Your task to perform on an android device: Search for macbook air on costco, select the first entry, and add it to the cart. Image 0: 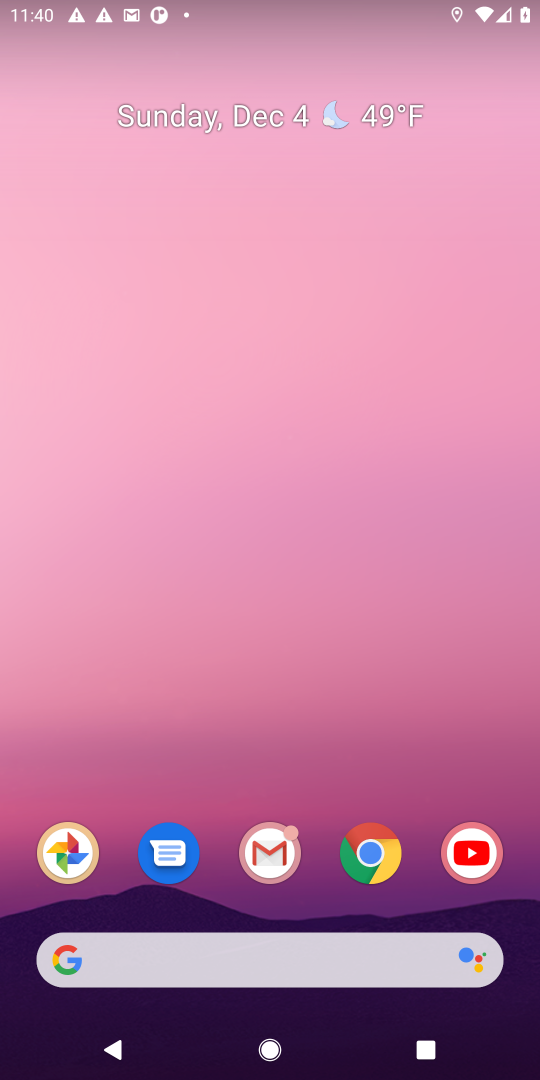
Step 0: click (358, 855)
Your task to perform on an android device: Search for macbook air on costco, select the first entry, and add it to the cart. Image 1: 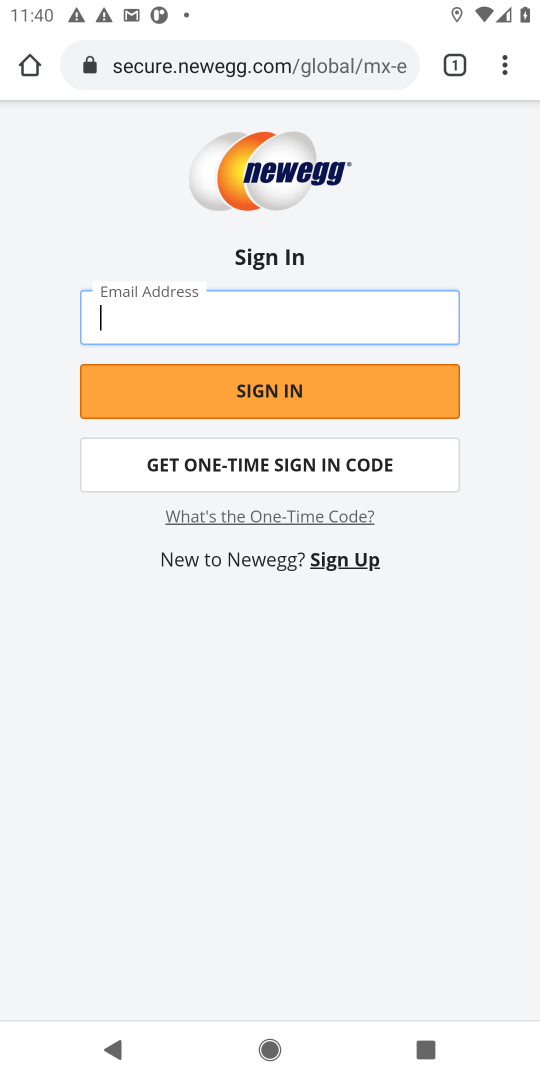
Step 1: click (191, 66)
Your task to perform on an android device: Search for macbook air on costco, select the first entry, and add it to the cart. Image 2: 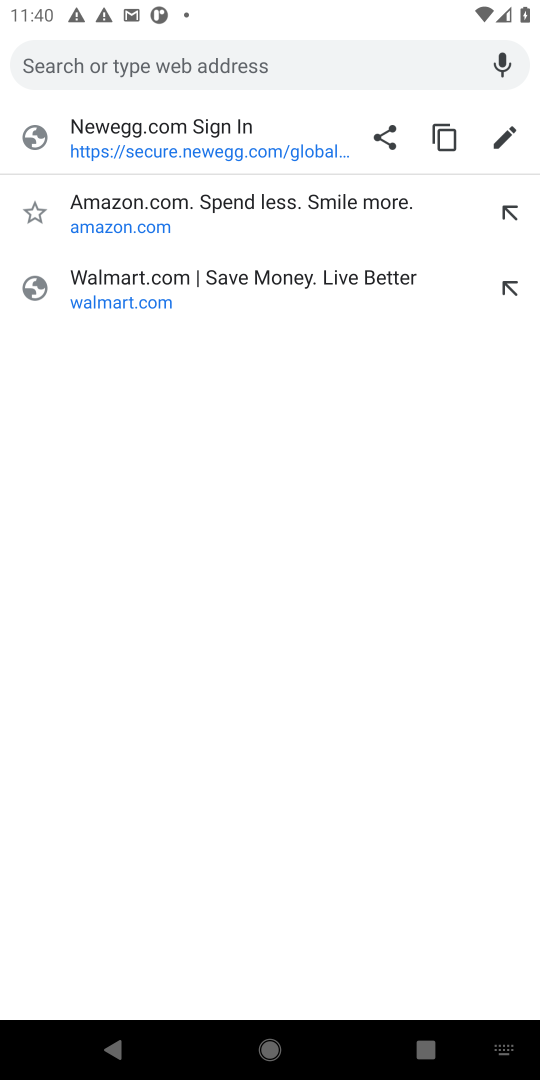
Step 2: type "costco"
Your task to perform on an android device: Search for macbook air on costco, select the first entry, and add it to the cart. Image 3: 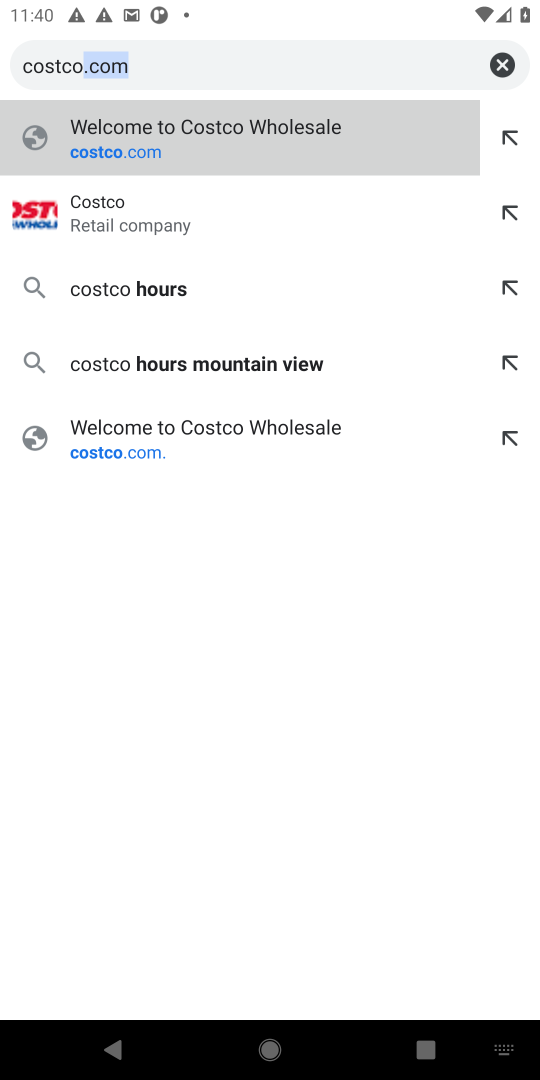
Step 3: click (182, 158)
Your task to perform on an android device: Search for macbook air on costco, select the first entry, and add it to the cart. Image 4: 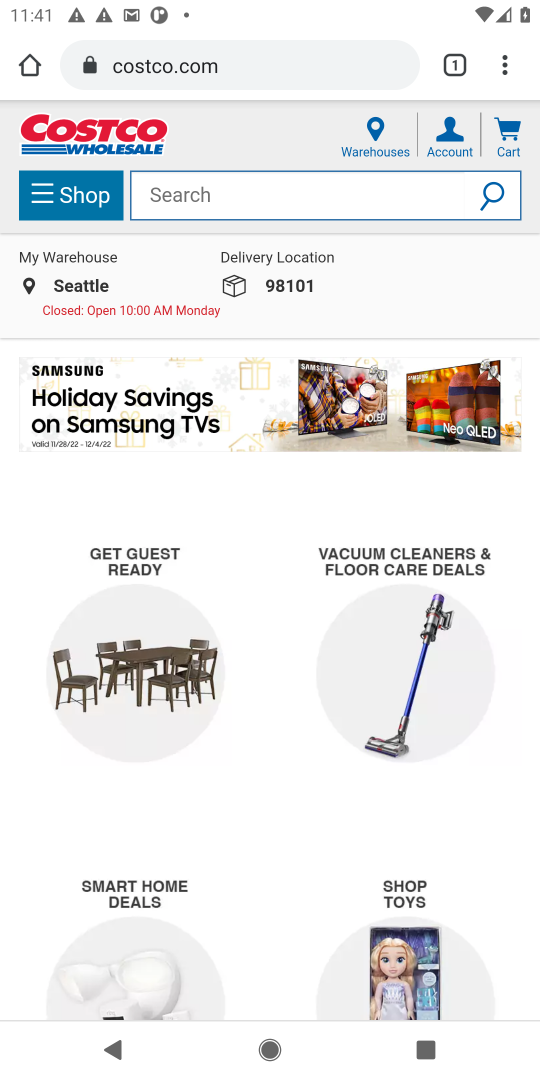
Step 4: click (339, 177)
Your task to perform on an android device: Search for macbook air on costco, select the first entry, and add it to the cart. Image 5: 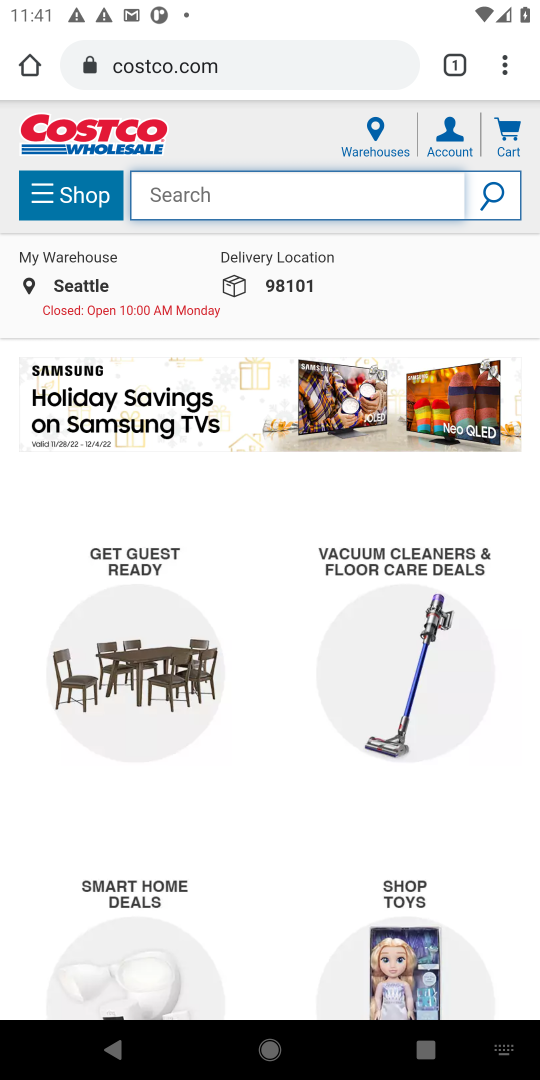
Step 5: type " macbook air "
Your task to perform on an android device: Search for macbook air on costco, select the first entry, and add it to the cart. Image 6: 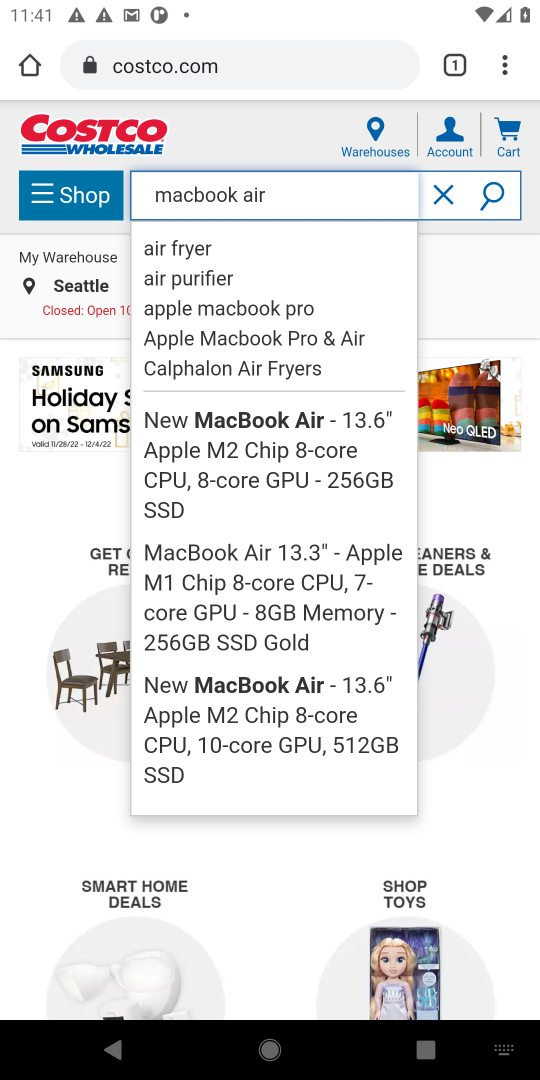
Step 6: click (508, 192)
Your task to perform on an android device: Search for macbook air on costco, select the first entry, and add it to the cart. Image 7: 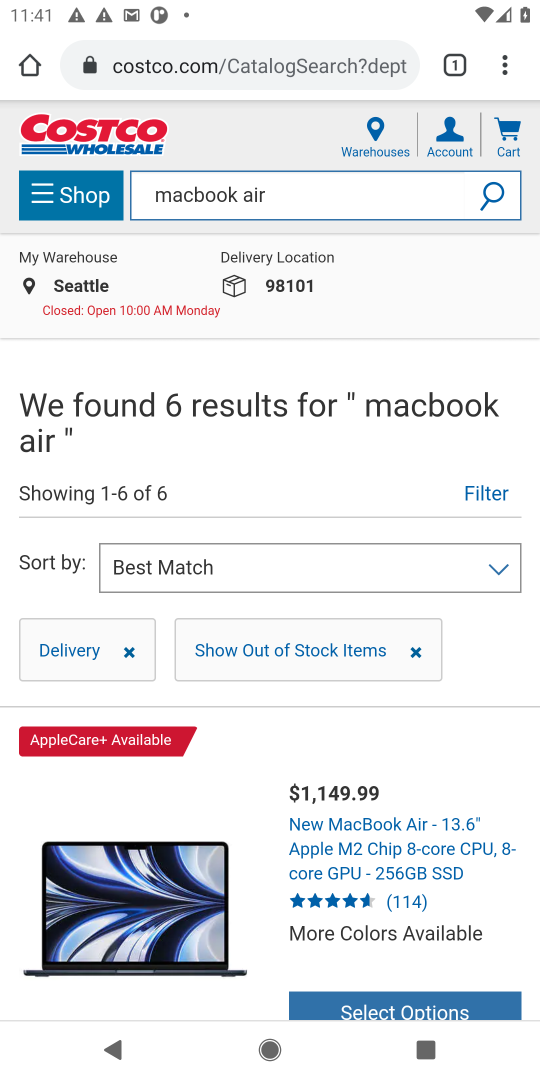
Step 7: drag from (366, 954) to (403, 273)
Your task to perform on an android device: Search for macbook air on costco, select the first entry, and add it to the cart. Image 8: 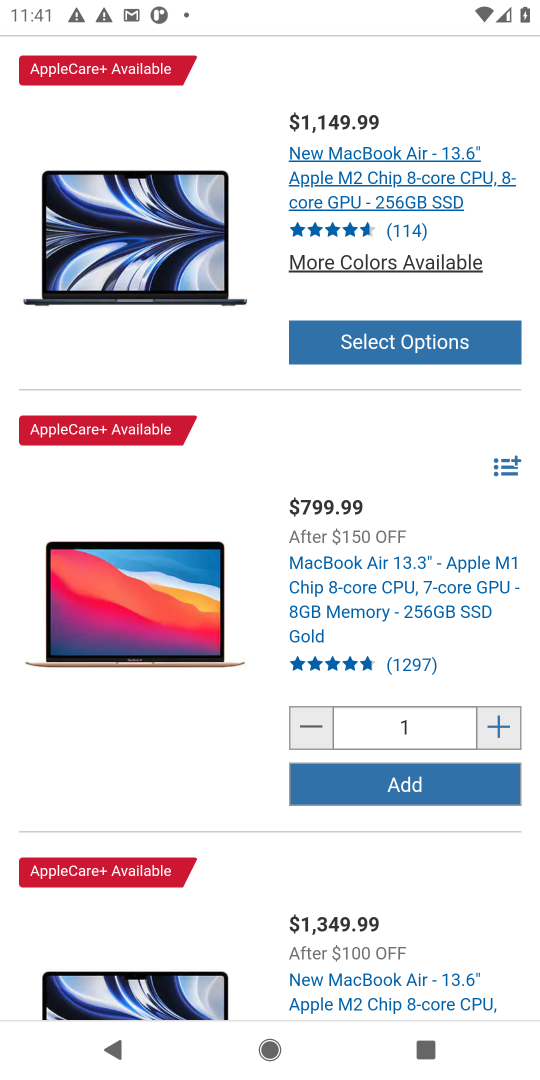
Step 8: click (427, 785)
Your task to perform on an android device: Search for macbook air on costco, select the first entry, and add it to the cart. Image 9: 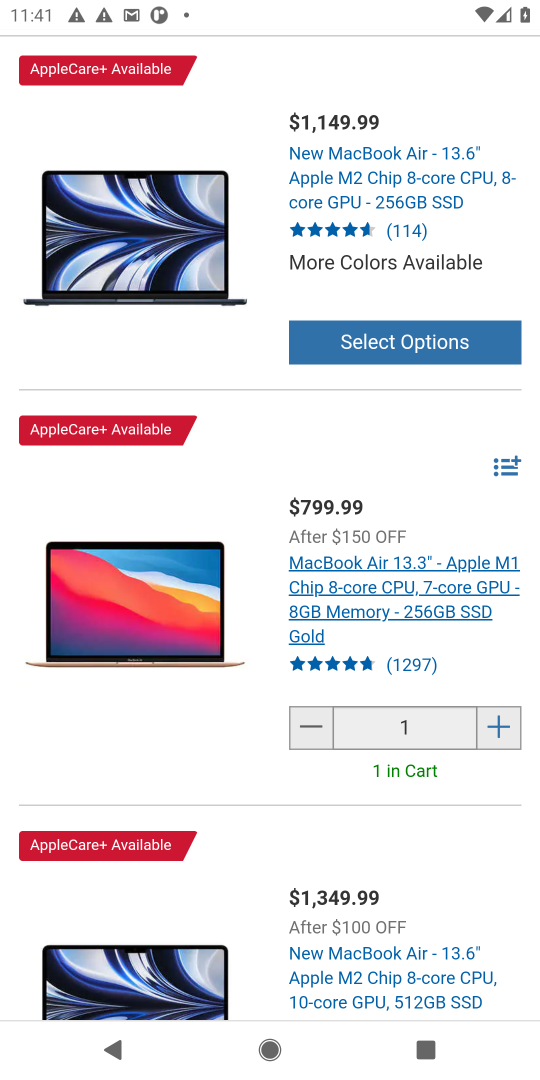
Step 9: task complete